Your task to perform on an android device: manage bookmarks in the chrome app Image 0: 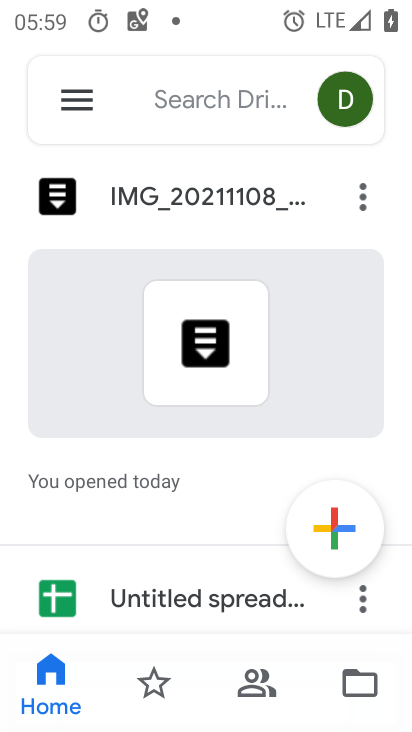
Step 0: press home button
Your task to perform on an android device: manage bookmarks in the chrome app Image 1: 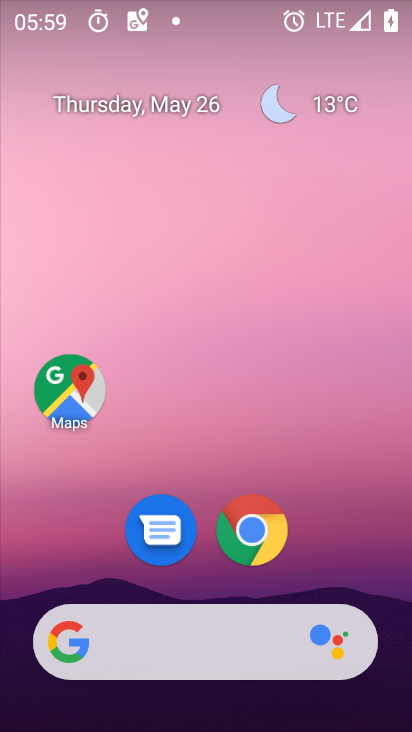
Step 1: drag from (324, 640) to (311, 15)
Your task to perform on an android device: manage bookmarks in the chrome app Image 2: 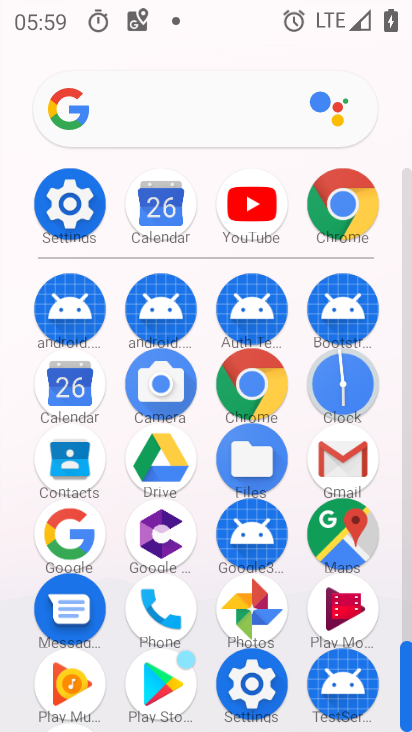
Step 2: click (258, 387)
Your task to perform on an android device: manage bookmarks in the chrome app Image 3: 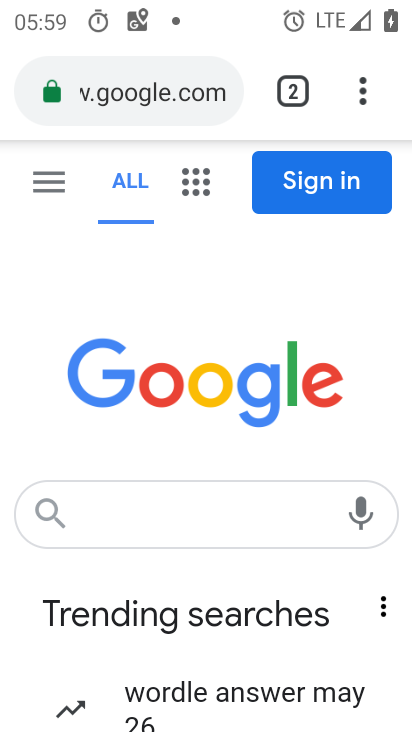
Step 3: task complete